Your task to perform on an android device: turn off improve location accuracy Image 0: 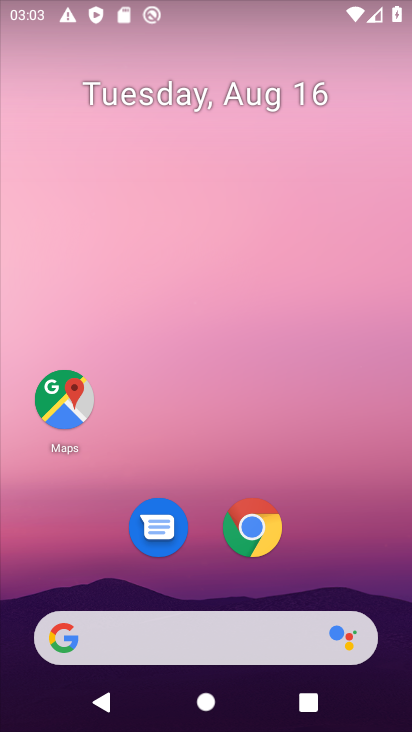
Step 0: press home button
Your task to perform on an android device: turn off improve location accuracy Image 1: 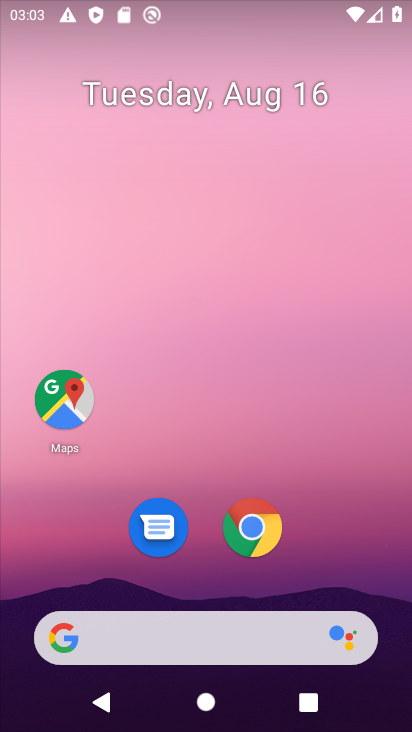
Step 1: drag from (206, 579) to (229, 3)
Your task to perform on an android device: turn off improve location accuracy Image 2: 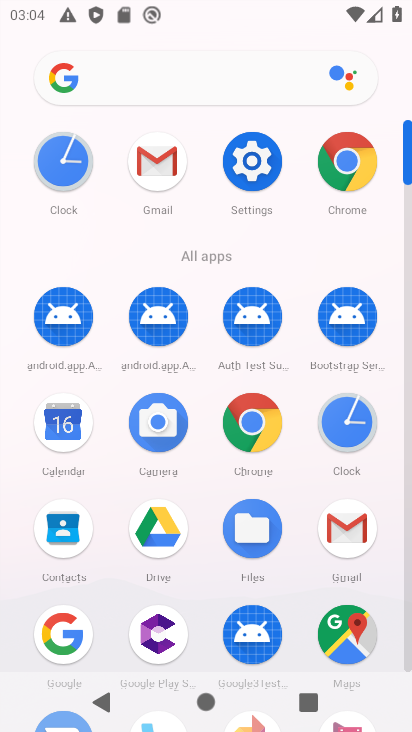
Step 2: click (254, 158)
Your task to perform on an android device: turn off improve location accuracy Image 3: 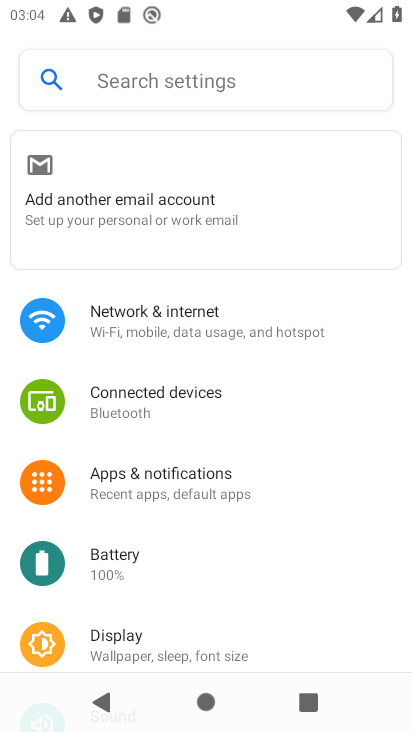
Step 3: drag from (213, 630) to (226, 117)
Your task to perform on an android device: turn off improve location accuracy Image 4: 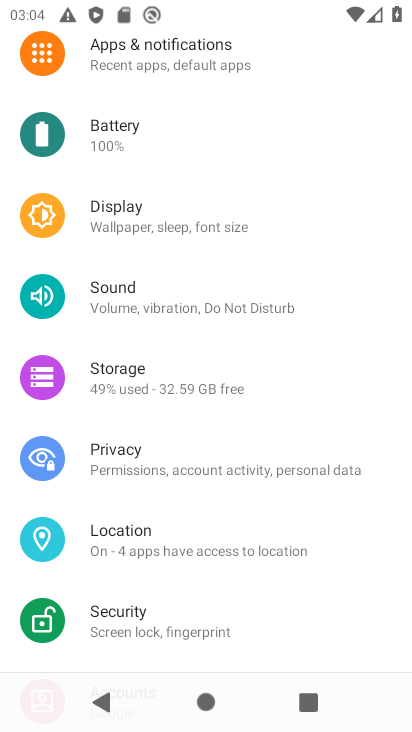
Step 4: click (159, 532)
Your task to perform on an android device: turn off improve location accuracy Image 5: 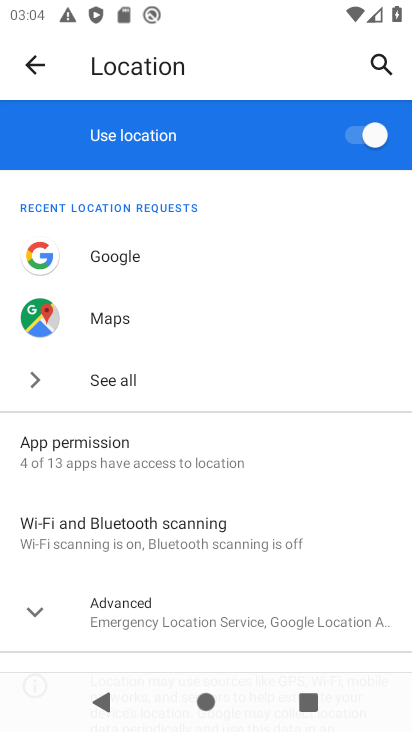
Step 5: click (40, 606)
Your task to perform on an android device: turn off improve location accuracy Image 6: 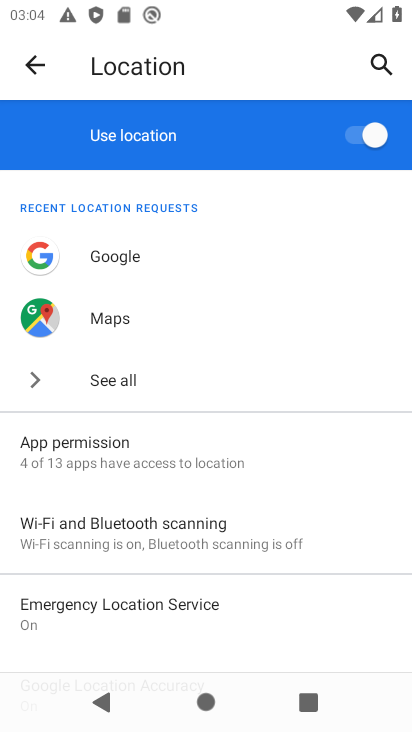
Step 6: drag from (227, 601) to (227, 138)
Your task to perform on an android device: turn off improve location accuracy Image 7: 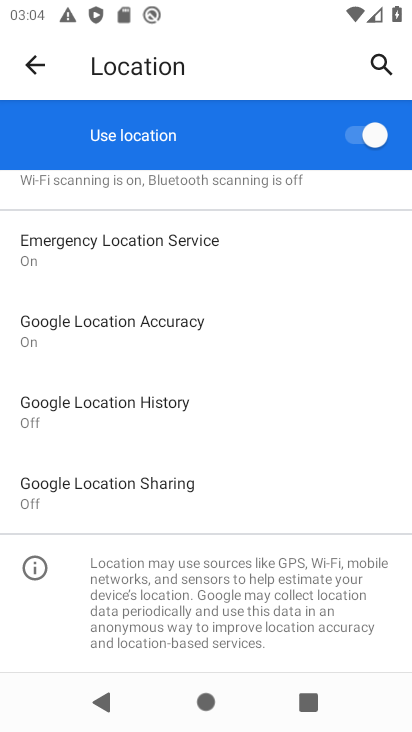
Step 7: click (130, 337)
Your task to perform on an android device: turn off improve location accuracy Image 8: 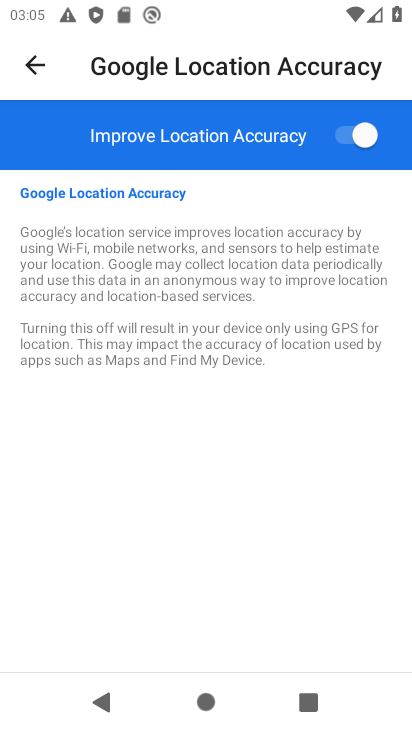
Step 8: click (346, 127)
Your task to perform on an android device: turn off improve location accuracy Image 9: 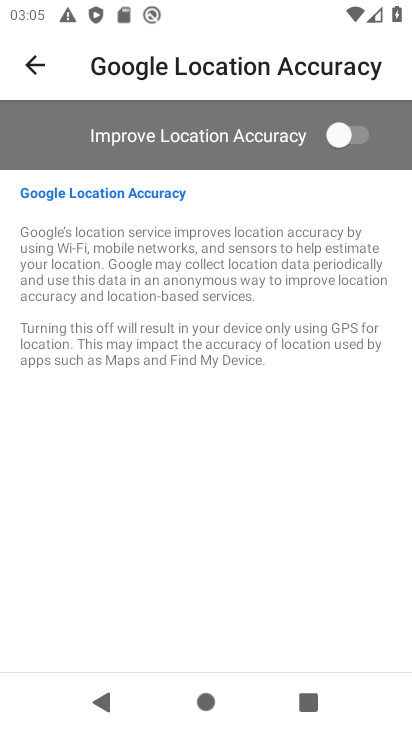
Step 9: task complete